Your task to perform on an android device: change timer sound Image 0: 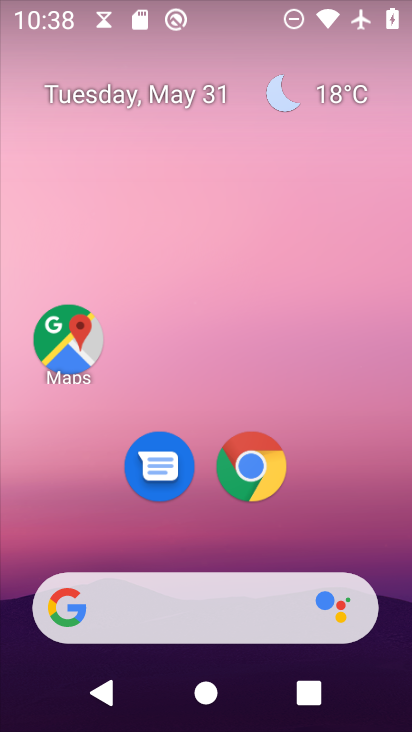
Step 0: drag from (372, 513) to (225, 25)
Your task to perform on an android device: change timer sound Image 1: 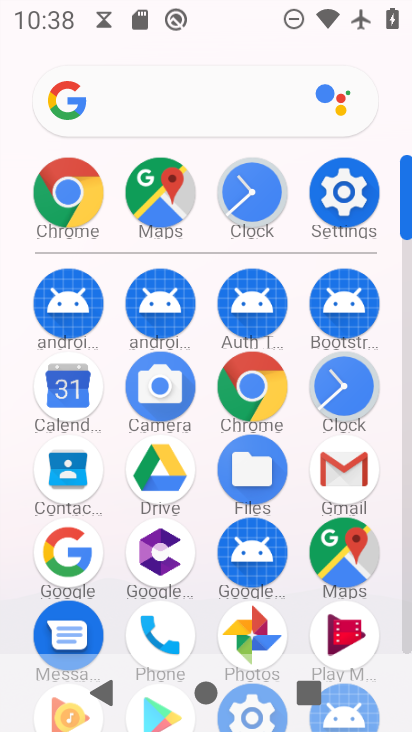
Step 1: click (345, 386)
Your task to perform on an android device: change timer sound Image 2: 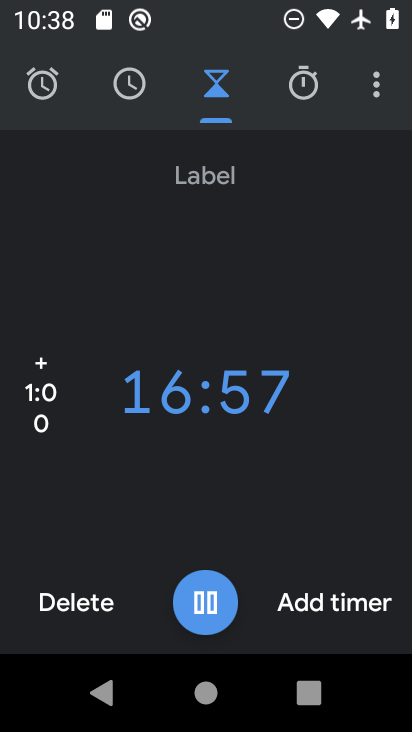
Step 2: drag from (374, 90) to (303, 151)
Your task to perform on an android device: change timer sound Image 3: 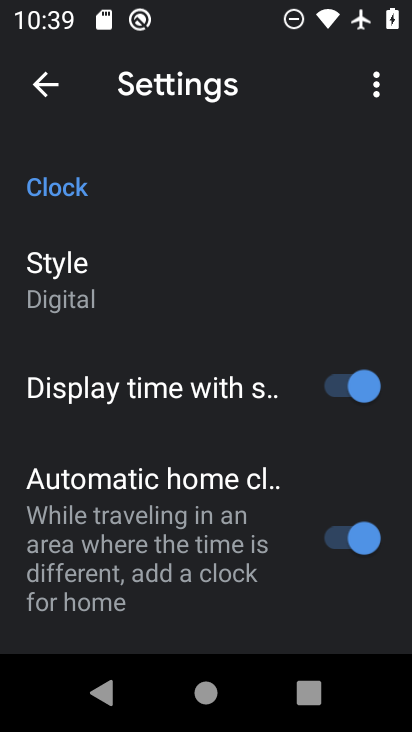
Step 3: drag from (169, 483) to (155, 203)
Your task to perform on an android device: change timer sound Image 4: 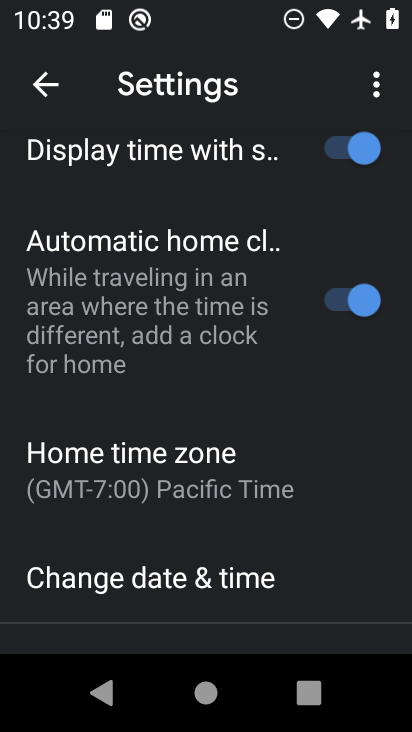
Step 4: drag from (193, 516) to (175, 244)
Your task to perform on an android device: change timer sound Image 5: 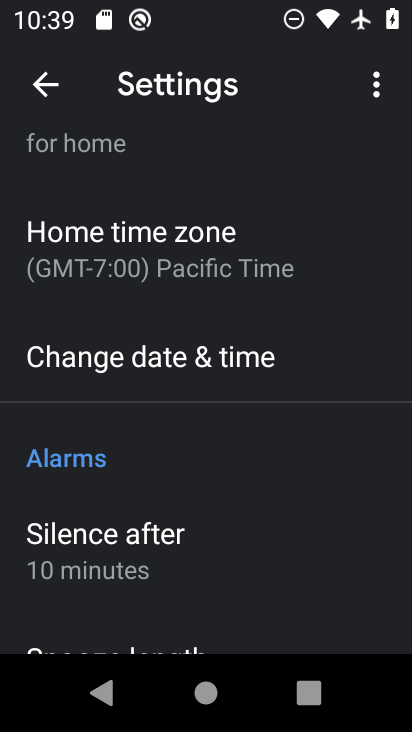
Step 5: drag from (221, 580) to (214, 229)
Your task to perform on an android device: change timer sound Image 6: 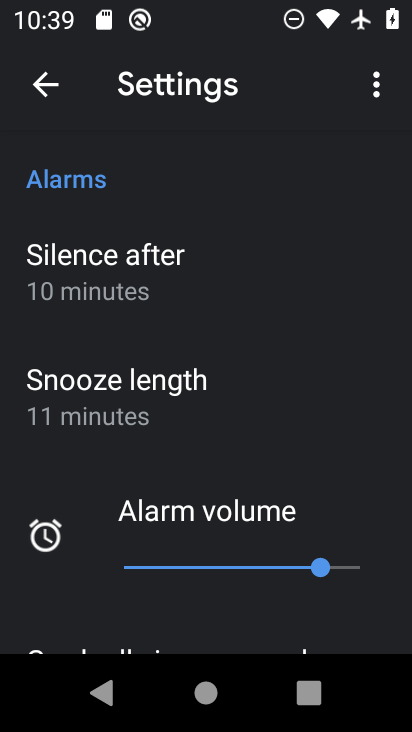
Step 6: drag from (211, 453) to (217, 159)
Your task to perform on an android device: change timer sound Image 7: 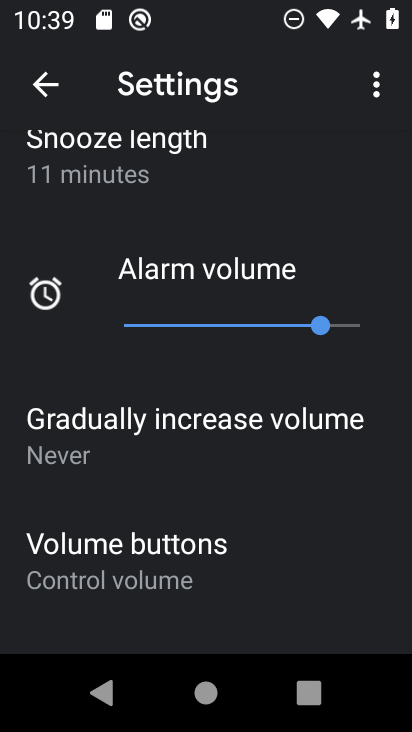
Step 7: drag from (222, 554) to (217, 174)
Your task to perform on an android device: change timer sound Image 8: 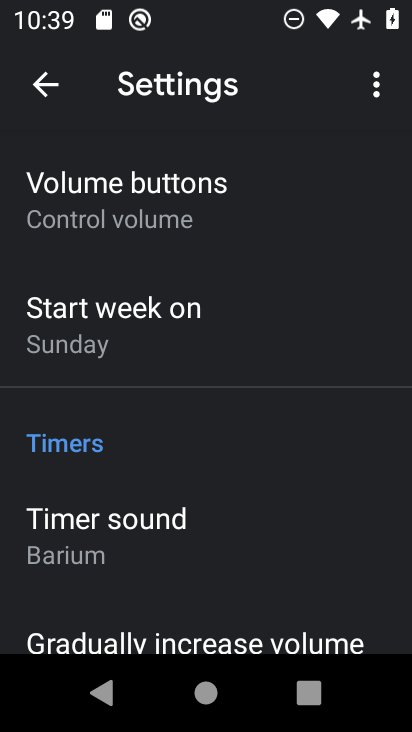
Step 8: click (166, 531)
Your task to perform on an android device: change timer sound Image 9: 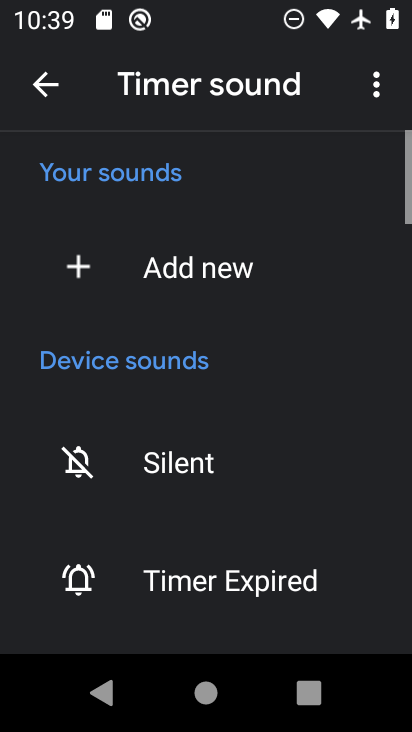
Step 9: drag from (265, 549) to (308, 221)
Your task to perform on an android device: change timer sound Image 10: 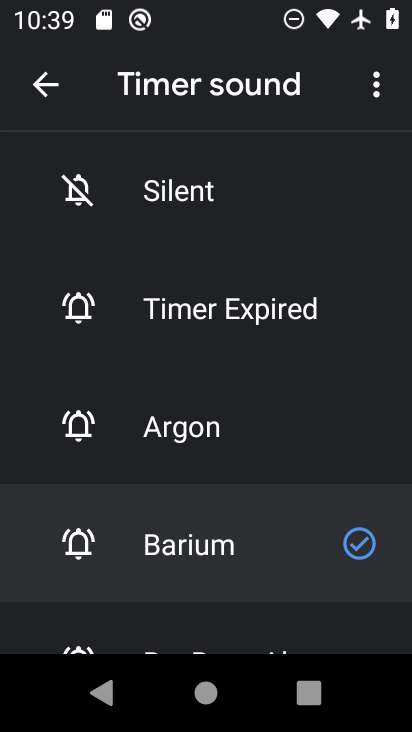
Step 10: click (219, 432)
Your task to perform on an android device: change timer sound Image 11: 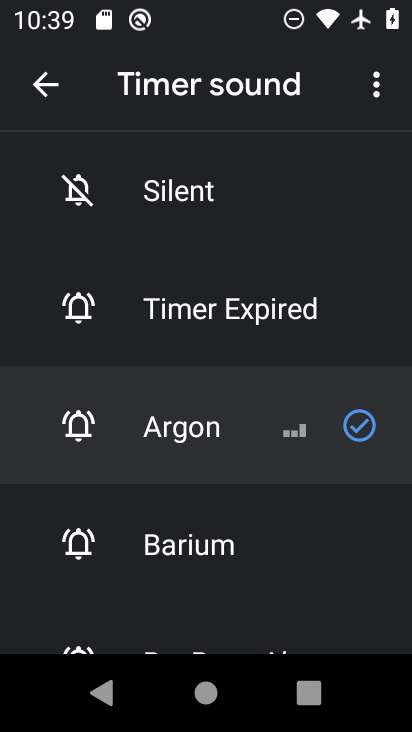
Step 11: task complete